Your task to perform on an android device: turn on data saver in the chrome app Image 0: 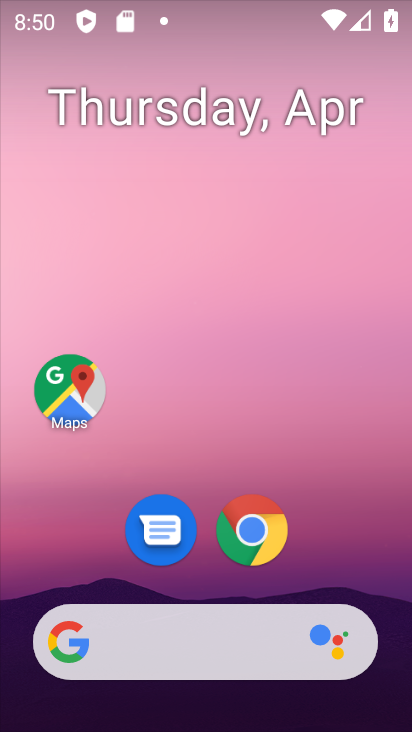
Step 0: click (229, 536)
Your task to perform on an android device: turn on data saver in the chrome app Image 1: 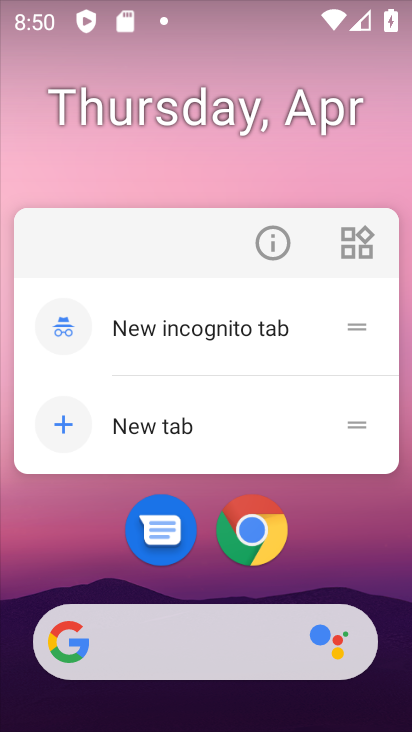
Step 1: click (248, 534)
Your task to perform on an android device: turn on data saver in the chrome app Image 2: 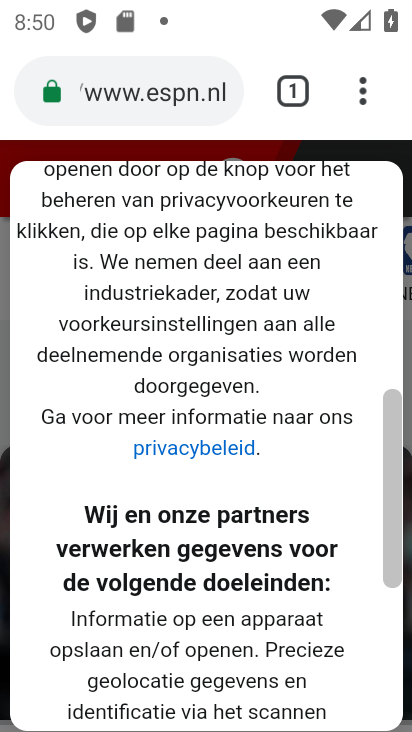
Step 2: press back button
Your task to perform on an android device: turn on data saver in the chrome app Image 3: 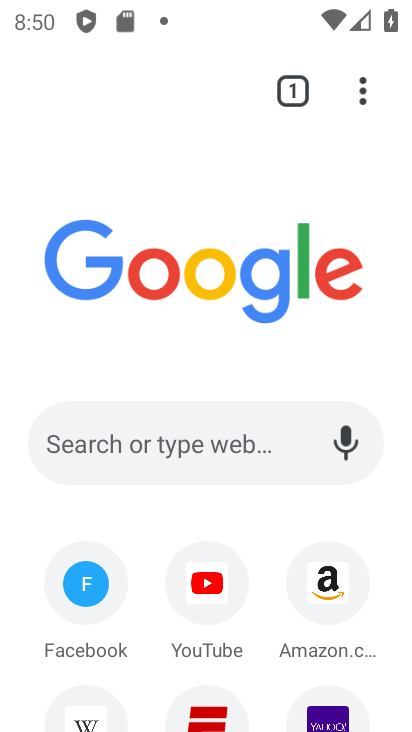
Step 3: click (361, 86)
Your task to perform on an android device: turn on data saver in the chrome app Image 4: 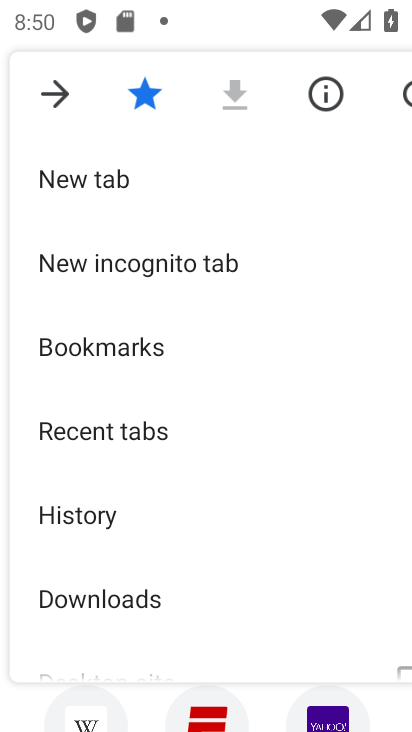
Step 4: drag from (192, 559) to (211, 159)
Your task to perform on an android device: turn on data saver in the chrome app Image 5: 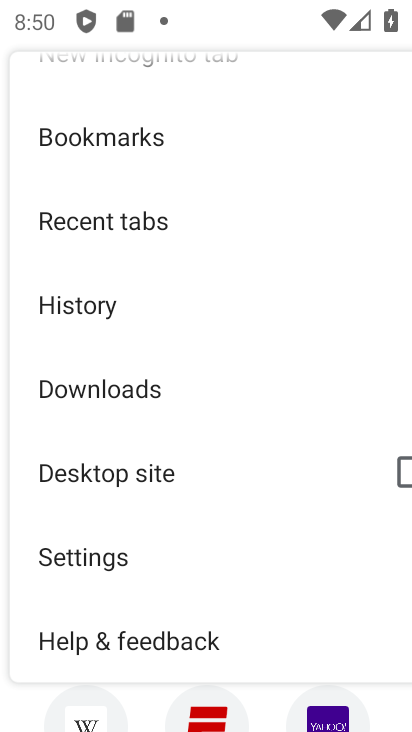
Step 5: click (135, 554)
Your task to perform on an android device: turn on data saver in the chrome app Image 6: 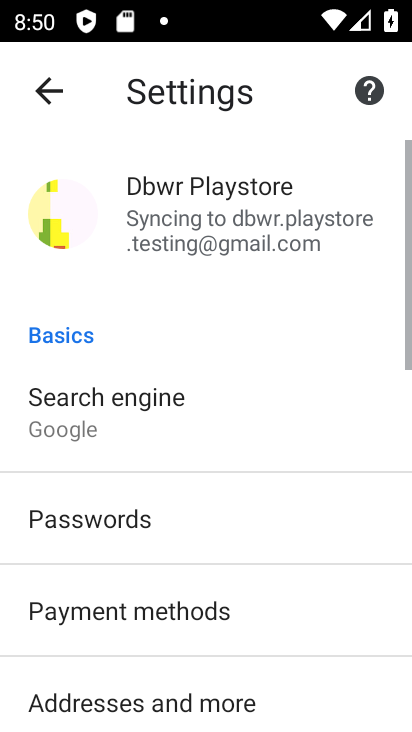
Step 6: drag from (123, 606) to (173, 112)
Your task to perform on an android device: turn on data saver in the chrome app Image 7: 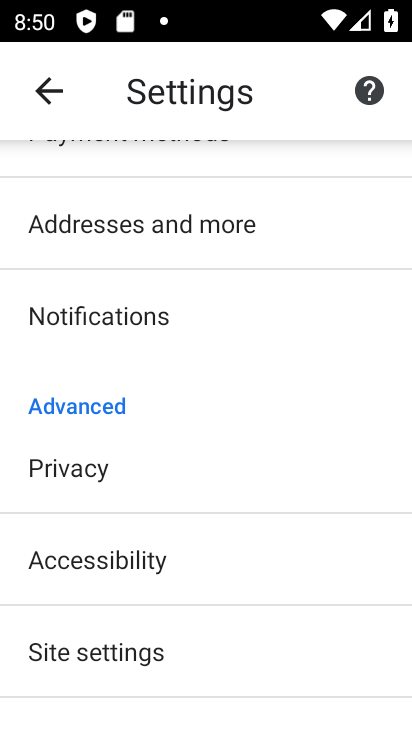
Step 7: drag from (140, 679) to (232, 302)
Your task to perform on an android device: turn on data saver in the chrome app Image 8: 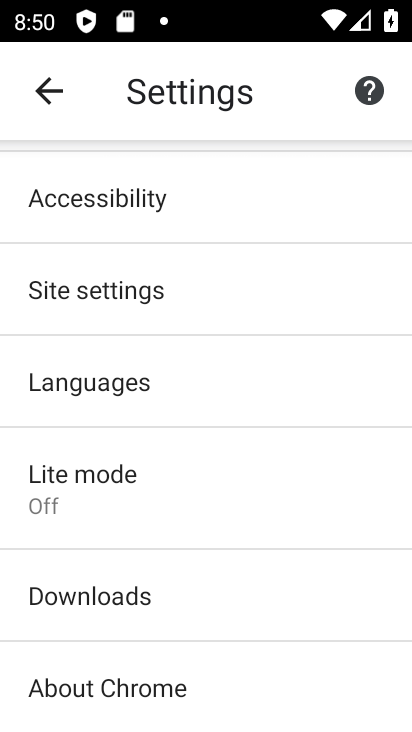
Step 8: click (161, 501)
Your task to perform on an android device: turn on data saver in the chrome app Image 9: 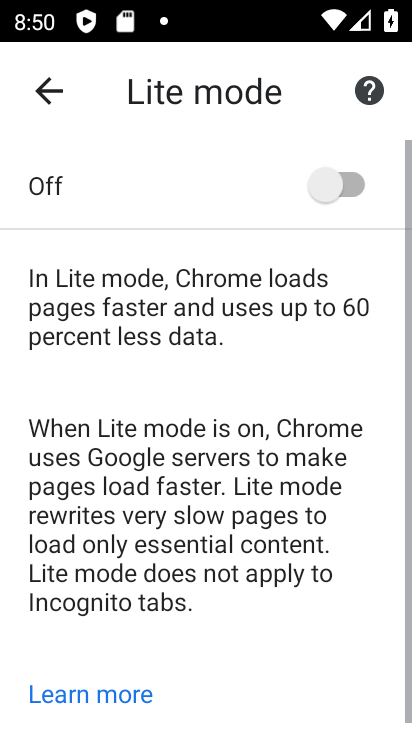
Step 9: click (315, 161)
Your task to perform on an android device: turn on data saver in the chrome app Image 10: 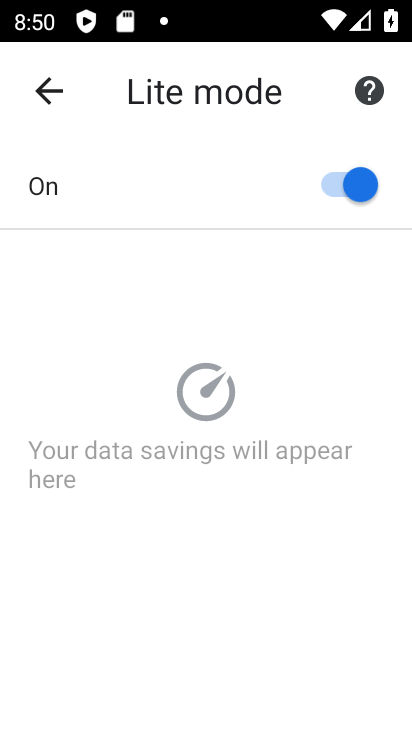
Step 10: task complete